Your task to perform on an android device: Open accessibility settings Image 0: 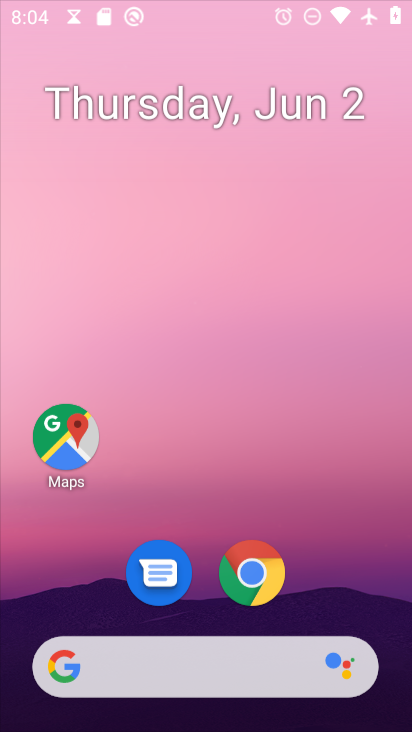
Step 0: press home button
Your task to perform on an android device: Open accessibility settings Image 1: 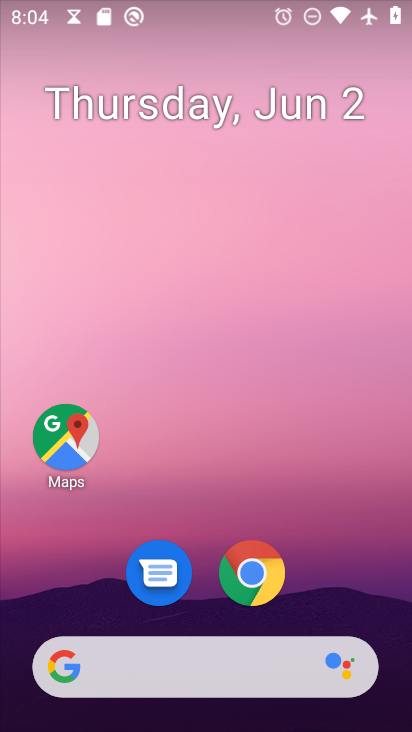
Step 1: drag from (164, 668) to (254, 104)
Your task to perform on an android device: Open accessibility settings Image 2: 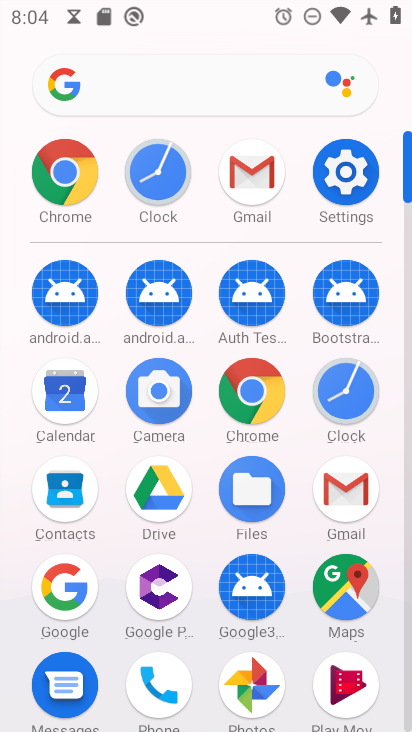
Step 2: click (354, 176)
Your task to perform on an android device: Open accessibility settings Image 3: 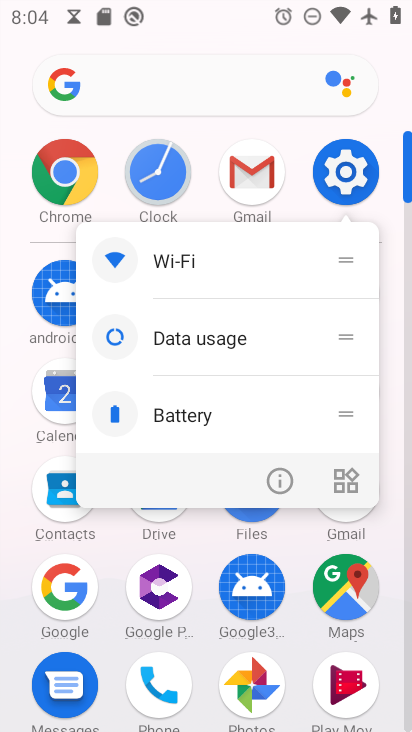
Step 3: click (348, 168)
Your task to perform on an android device: Open accessibility settings Image 4: 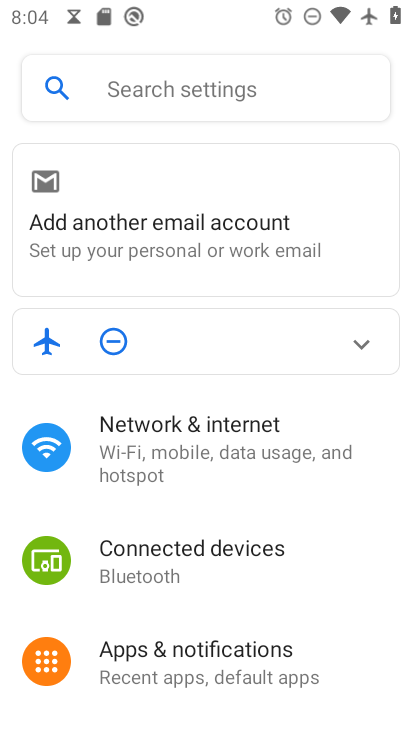
Step 4: drag from (259, 676) to (364, 85)
Your task to perform on an android device: Open accessibility settings Image 5: 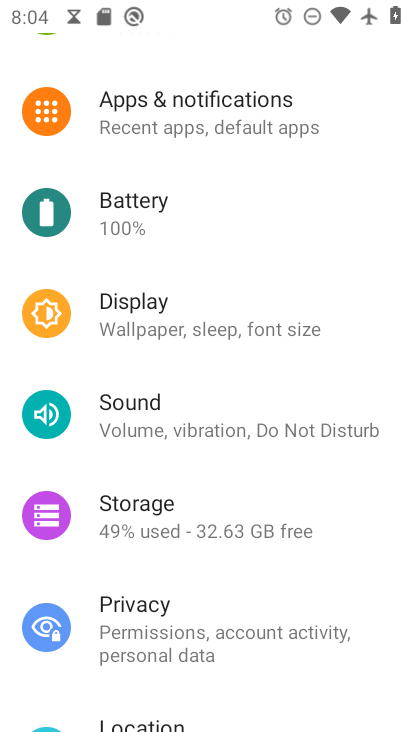
Step 5: drag from (260, 539) to (338, 191)
Your task to perform on an android device: Open accessibility settings Image 6: 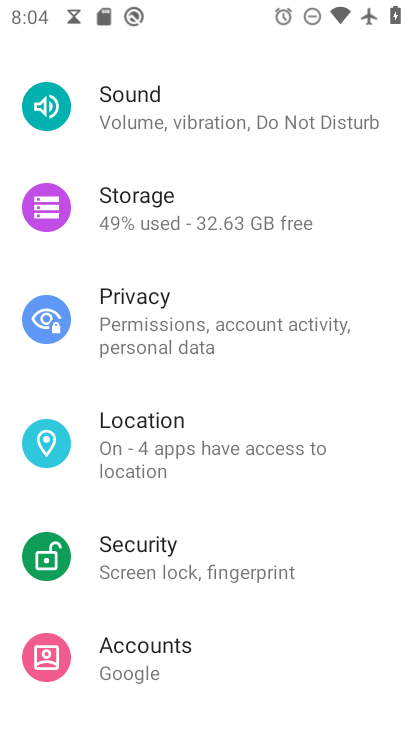
Step 6: drag from (278, 630) to (348, 239)
Your task to perform on an android device: Open accessibility settings Image 7: 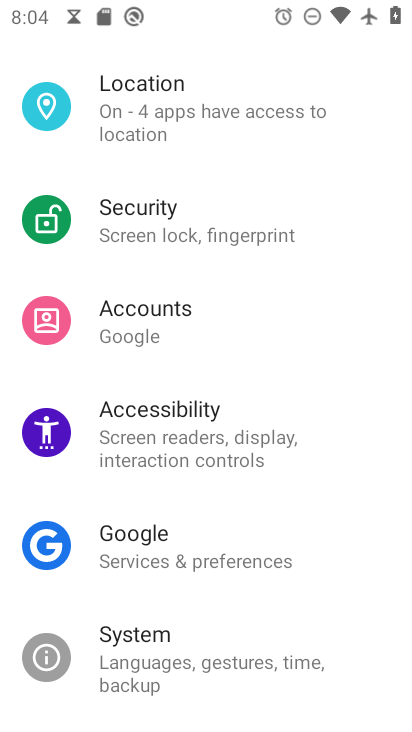
Step 7: click (166, 436)
Your task to perform on an android device: Open accessibility settings Image 8: 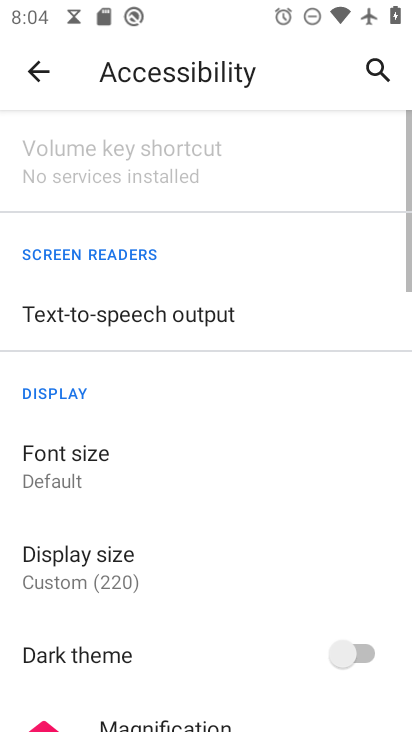
Step 8: task complete